Your task to perform on an android device: Search for dell xps on costco, select the first entry, and add it to the cart. Image 0: 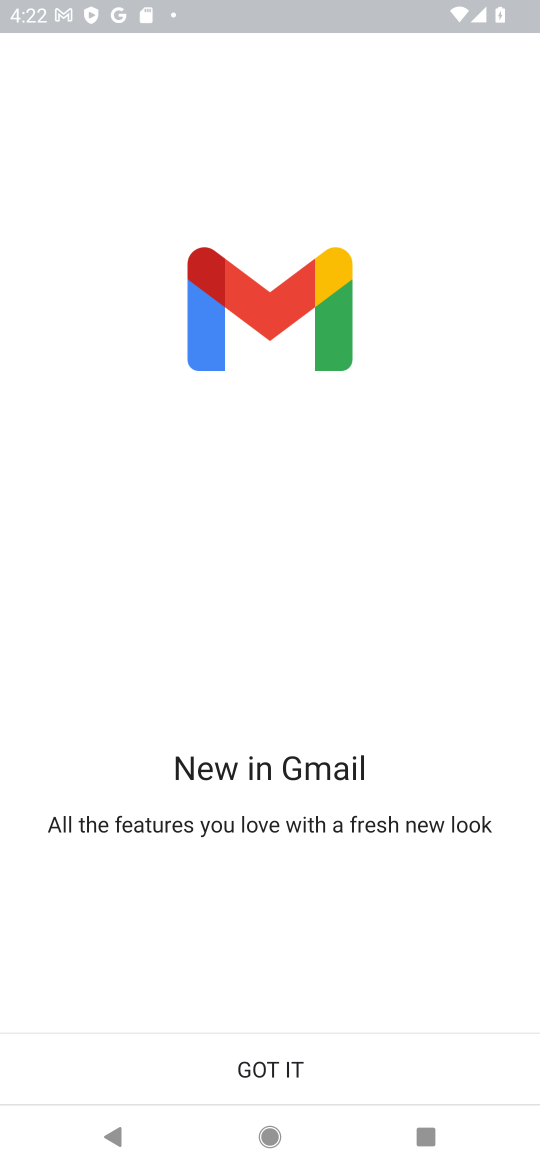
Step 0: press home button
Your task to perform on an android device: Search for dell xps on costco, select the first entry, and add it to the cart. Image 1: 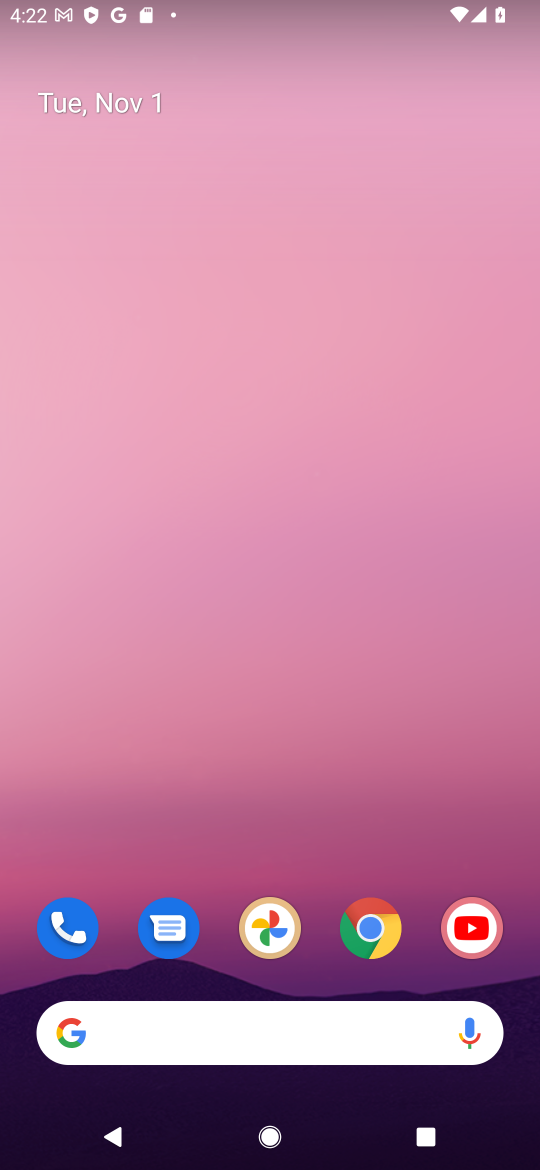
Step 1: click (375, 927)
Your task to perform on an android device: Search for dell xps on costco, select the first entry, and add it to the cart. Image 2: 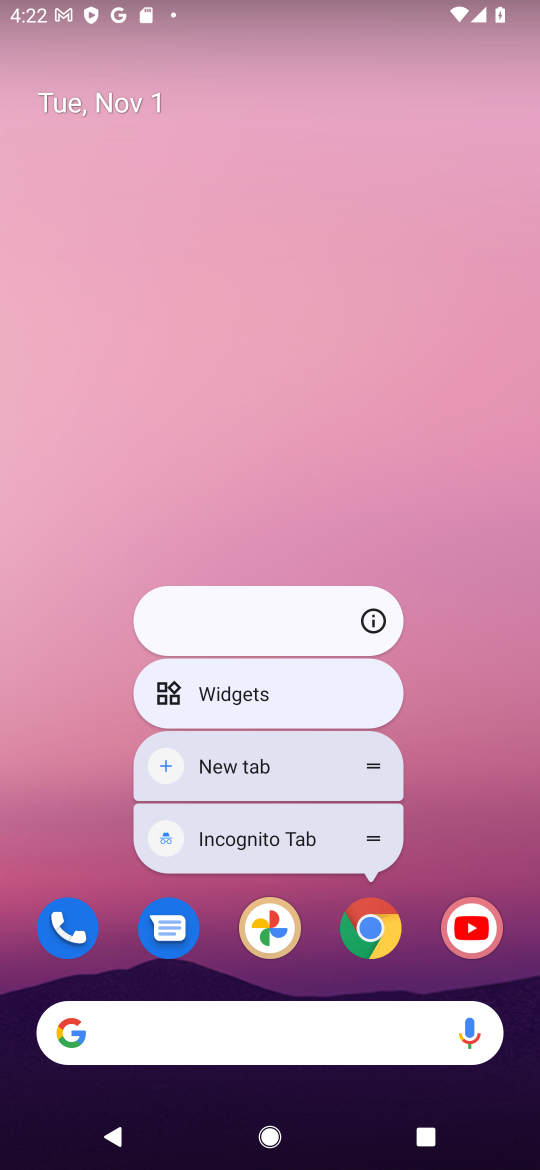
Step 2: click (376, 927)
Your task to perform on an android device: Search for dell xps on costco, select the first entry, and add it to the cart. Image 3: 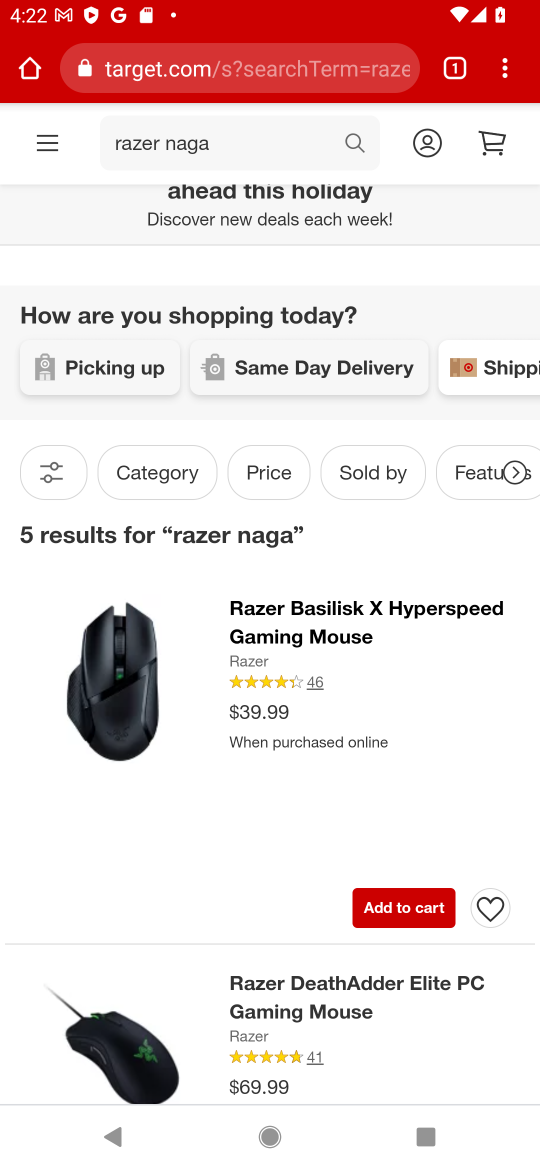
Step 3: click (273, 64)
Your task to perform on an android device: Search for dell xps on costco, select the first entry, and add it to the cart. Image 4: 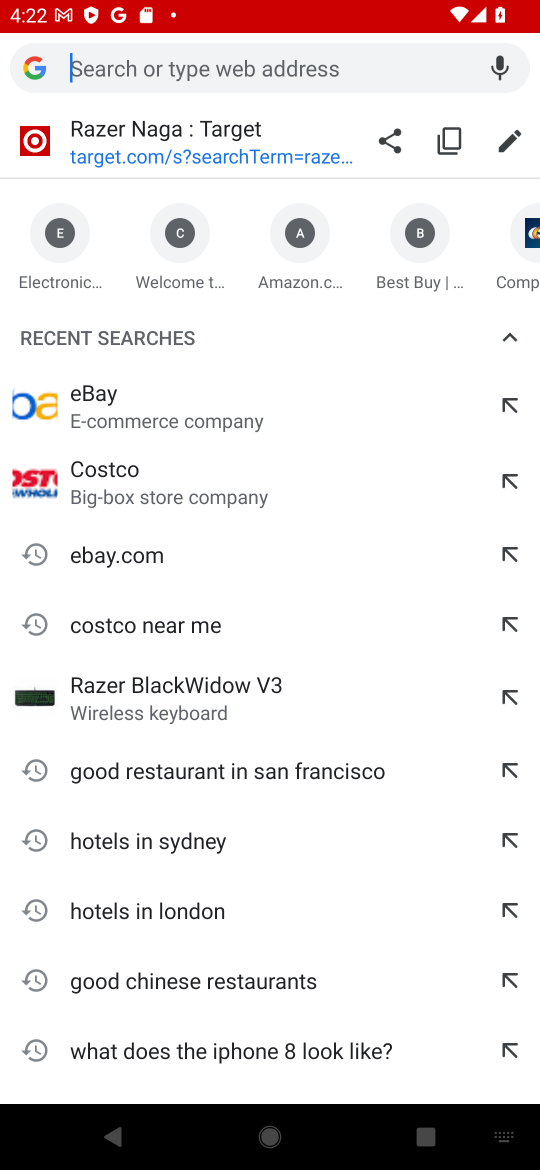
Step 4: type "costco"
Your task to perform on an android device: Search for dell xps on costco, select the first entry, and add it to the cart. Image 5: 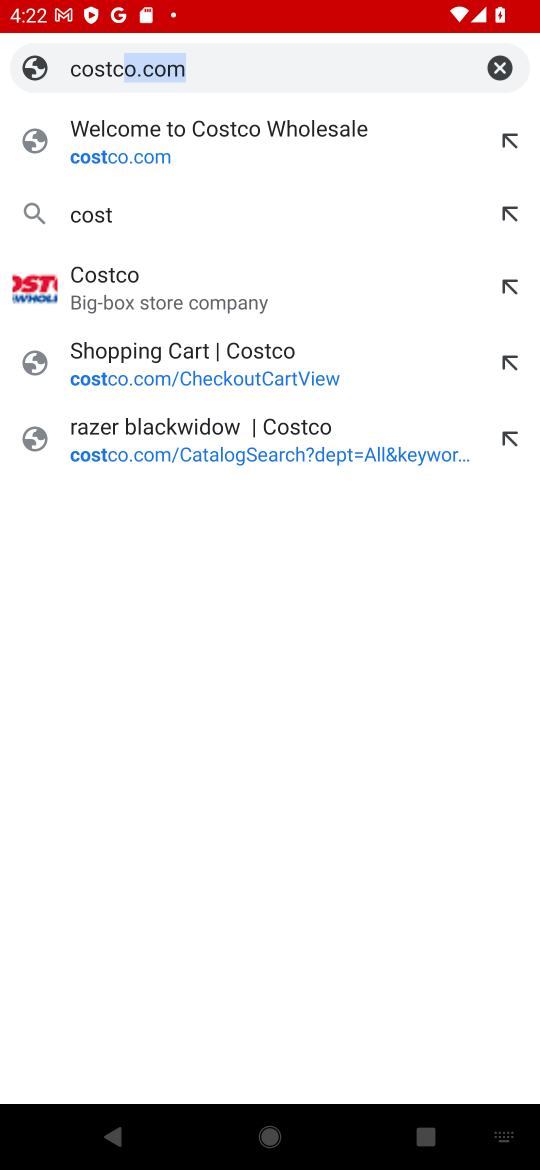
Step 5: type ""
Your task to perform on an android device: Search for dell xps on costco, select the first entry, and add it to the cart. Image 6: 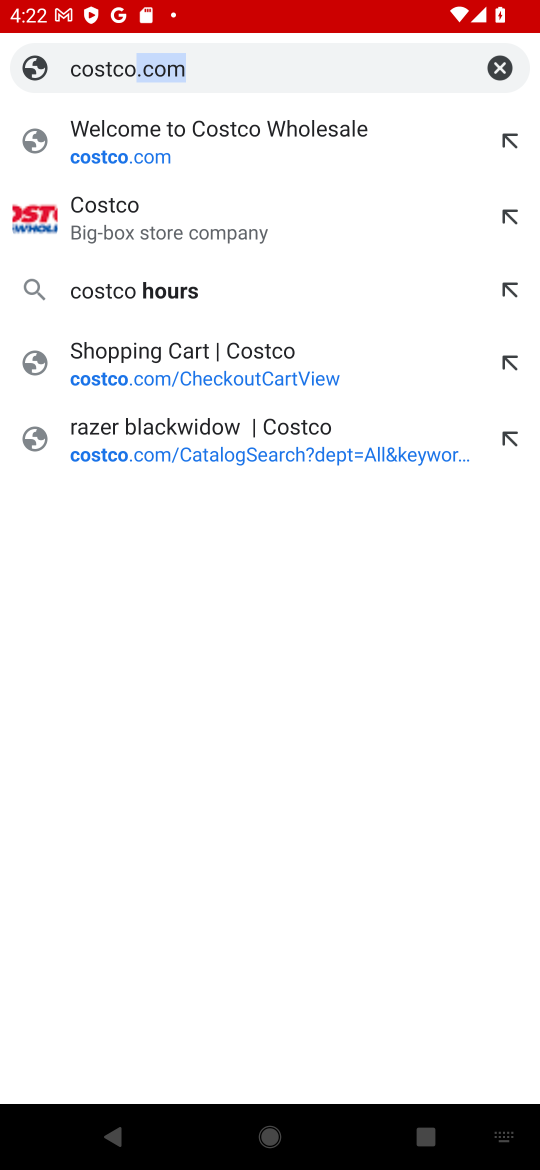
Step 6: press enter
Your task to perform on an android device: Search for dell xps on costco, select the first entry, and add it to the cart. Image 7: 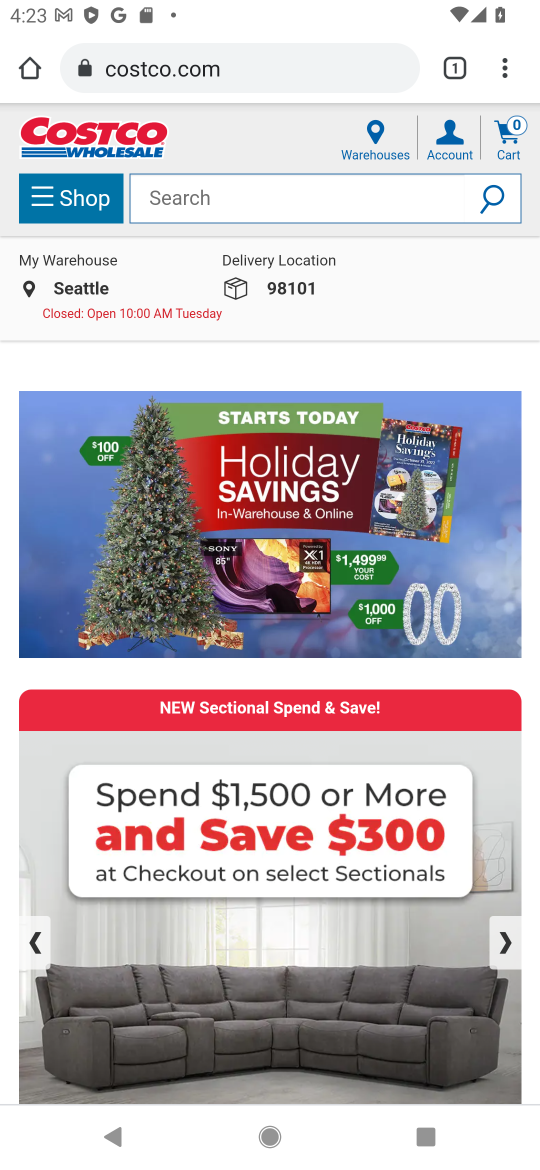
Step 7: click (238, 197)
Your task to perform on an android device: Search for dell xps on costco, select the first entry, and add it to the cart. Image 8: 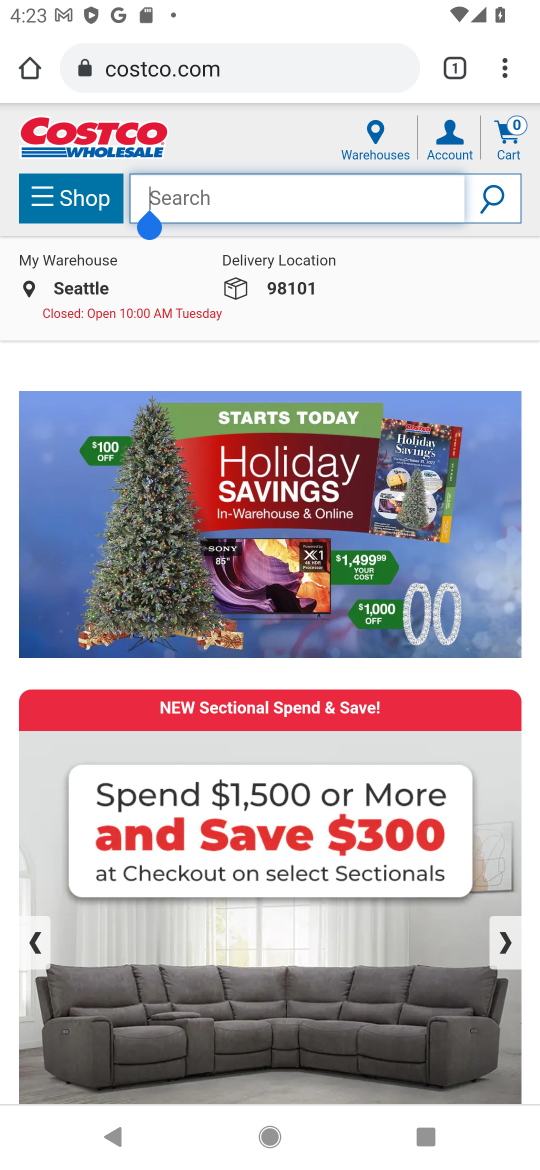
Step 8: type "dell xps"
Your task to perform on an android device: Search for dell xps on costco, select the first entry, and add it to the cart. Image 9: 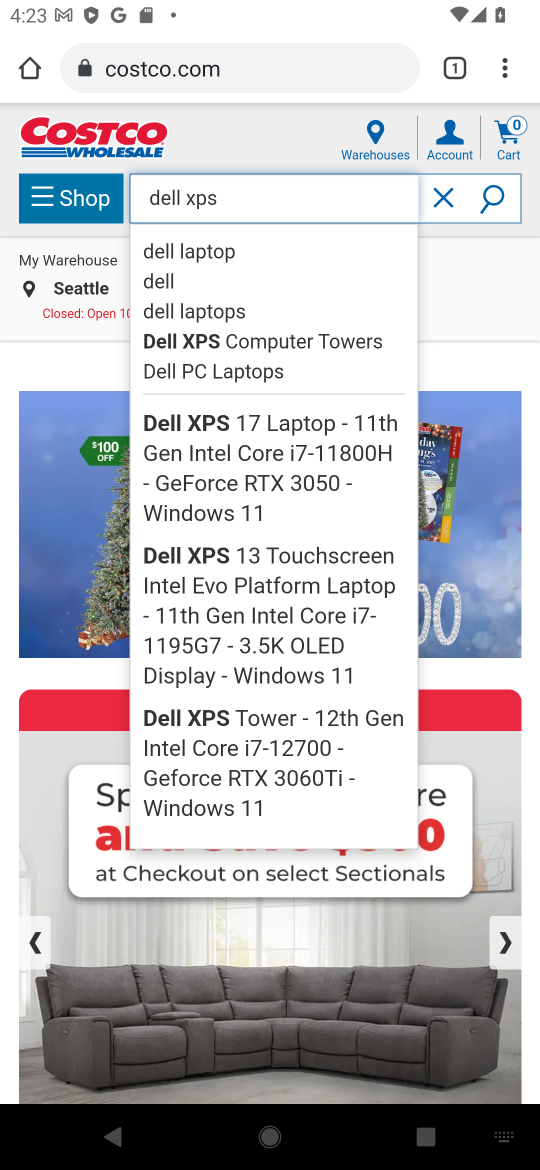
Step 9: press enter
Your task to perform on an android device: Search for dell xps on costco, select the first entry, and add it to the cart. Image 10: 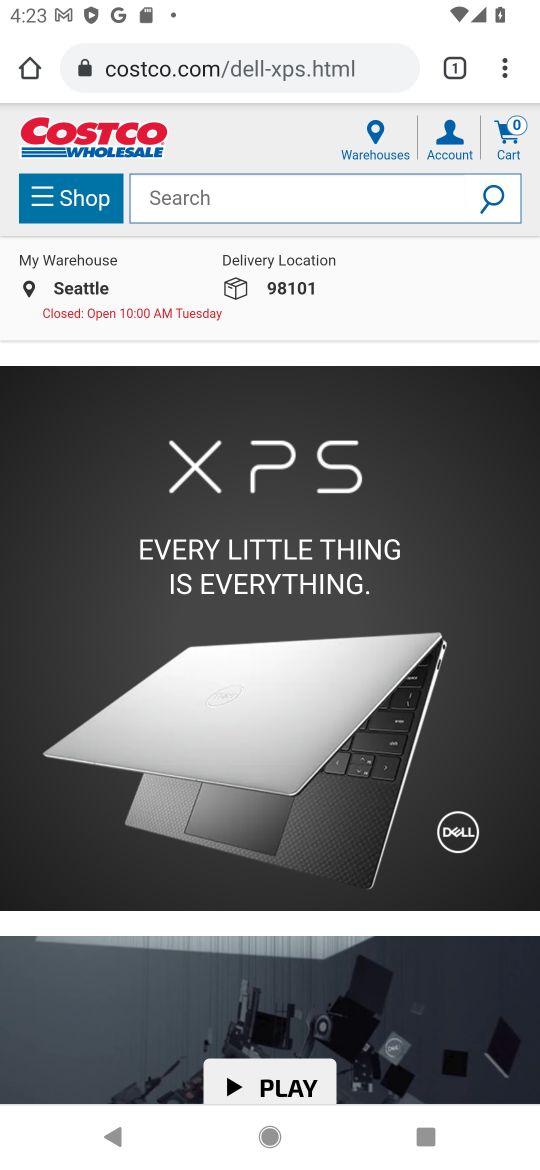
Step 10: click (243, 193)
Your task to perform on an android device: Search for dell xps on costco, select the first entry, and add it to the cart. Image 11: 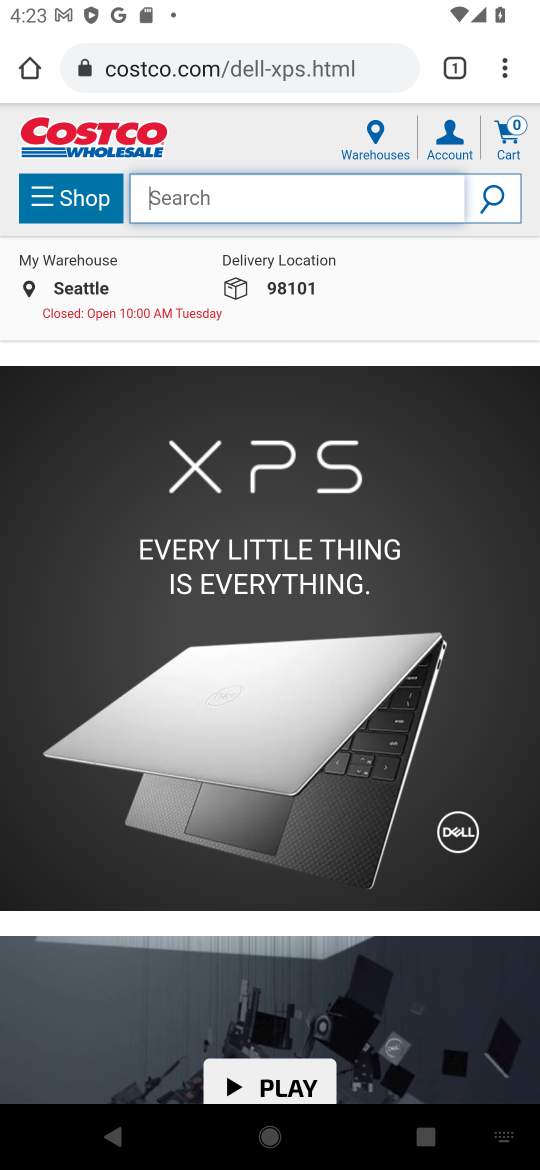
Step 11: drag from (392, 873) to (377, 125)
Your task to perform on an android device: Search for dell xps on costco, select the first entry, and add it to the cart. Image 12: 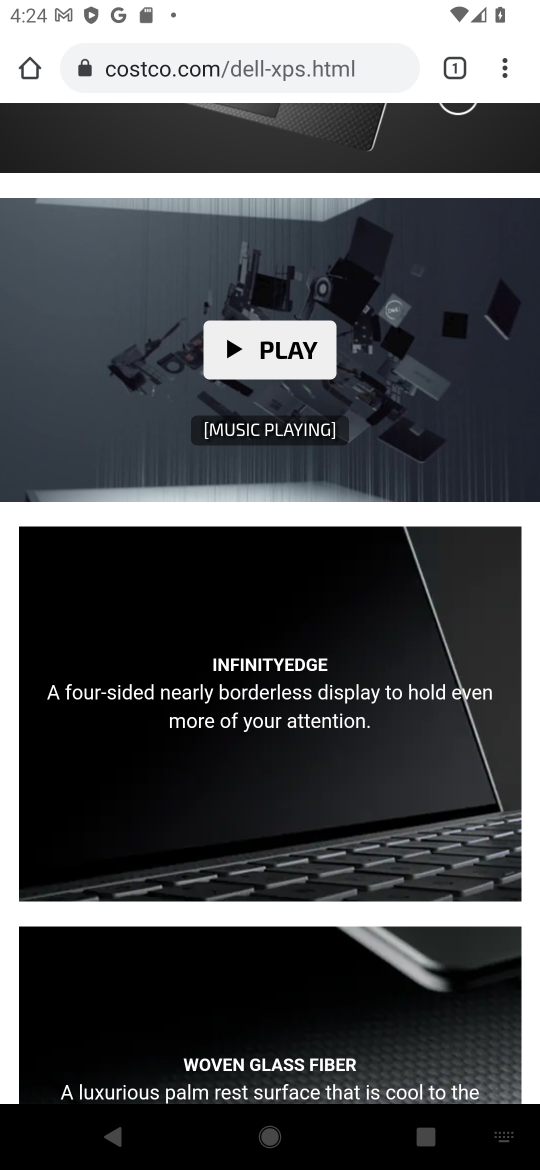
Step 12: drag from (381, 810) to (493, 109)
Your task to perform on an android device: Search for dell xps on costco, select the first entry, and add it to the cart. Image 13: 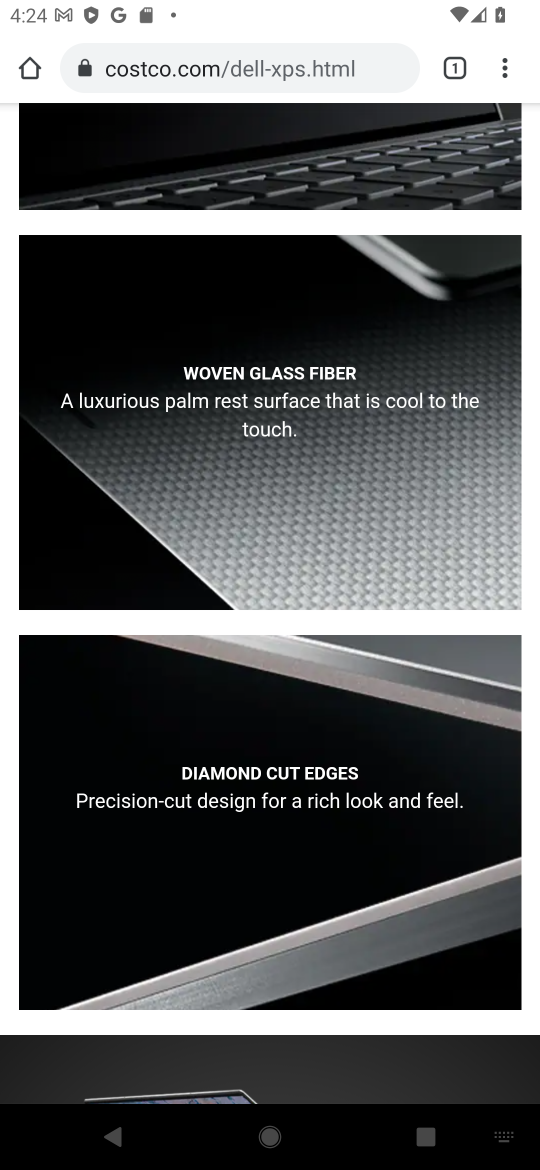
Step 13: drag from (406, 891) to (450, 186)
Your task to perform on an android device: Search for dell xps on costco, select the first entry, and add it to the cart. Image 14: 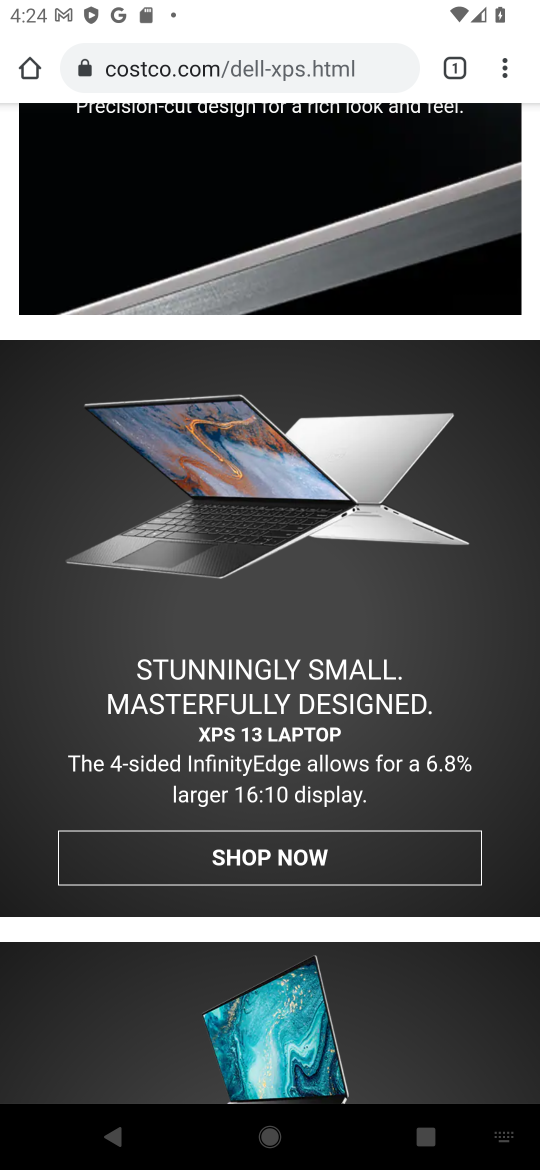
Step 14: click (354, 873)
Your task to perform on an android device: Search for dell xps on costco, select the first entry, and add it to the cart. Image 15: 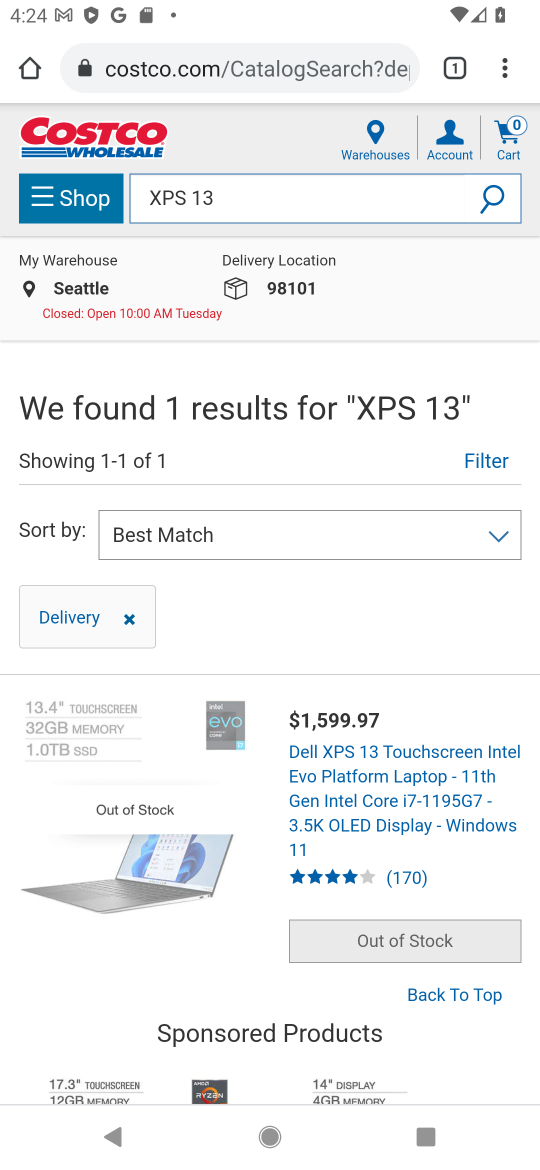
Step 15: task complete